Your task to perform on an android device: check out phone information Image 0: 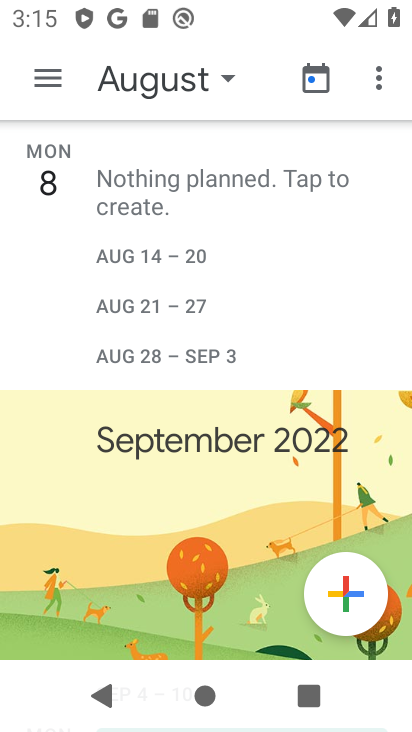
Step 0: press back button
Your task to perform on an android device: check out phone information Image 1: 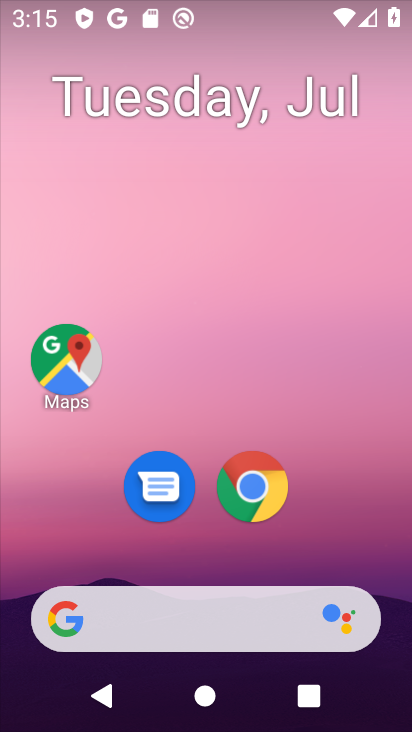
Step 1: drag from (142, 553) to (269, 15)
Your task to perform on an android device: check out phone information Image 2: 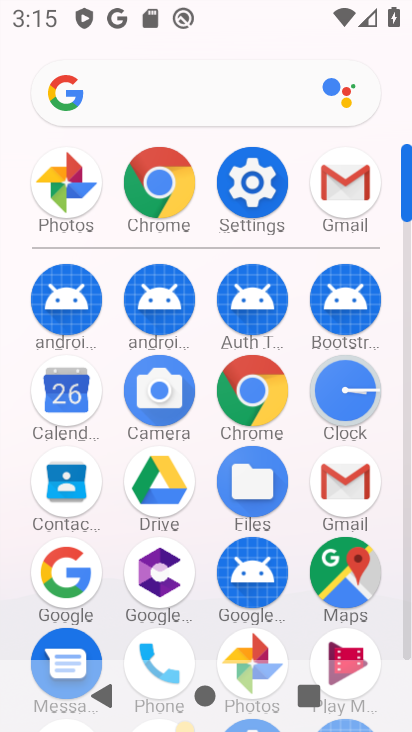
Step 2: click (257, 184)
Your task to perform on an android device: check out phone information Image 3: 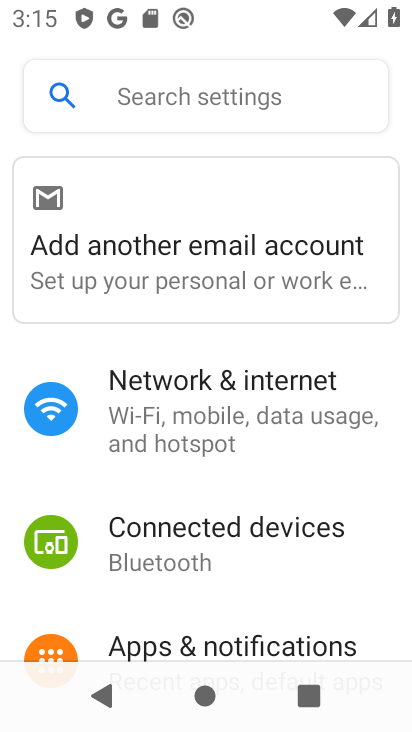
Step 3: drag from (202, 634) to (276, 19)
Your task to perform on an android device: check out phone information Image 4: 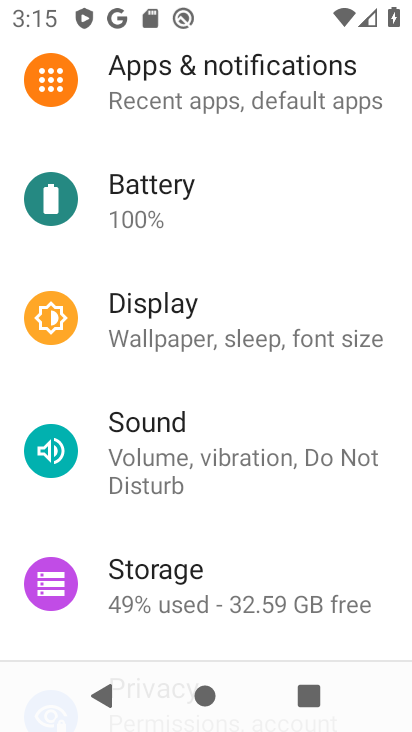
Step 4: drag from (184, 601) to (309, 0)
Your task to perform on an android device: check out phone information Image 5: 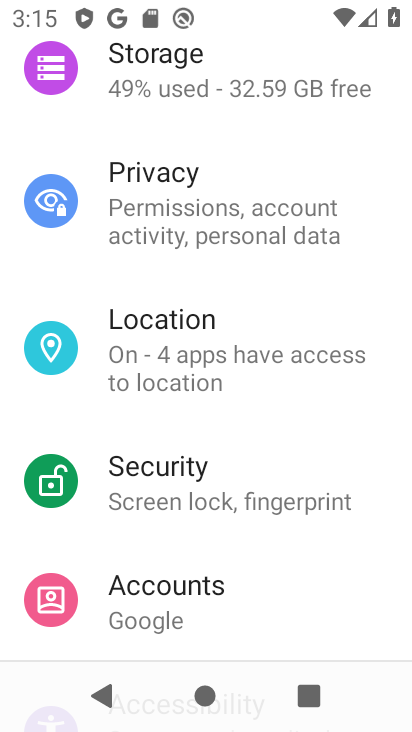
Step 5: drag from (158, 636) to (282, 25)
Your task to perform on an android device: check out phone information Image 6: 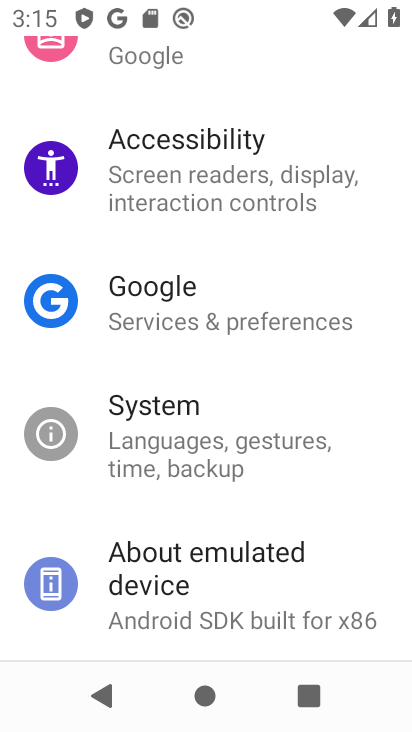
Step 6: drag from (191, 592) to (251, 23)
Your task to perform on an android device: check out phone information Image 7: 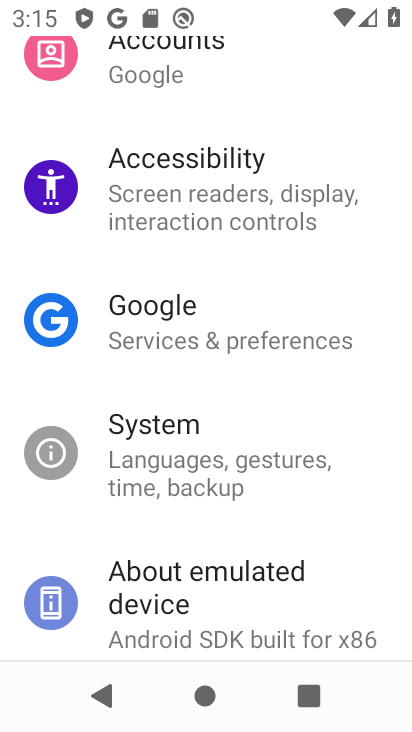
Step 7: click (178, 585)
Your task to perform on an android device: check out phone information Image 8: 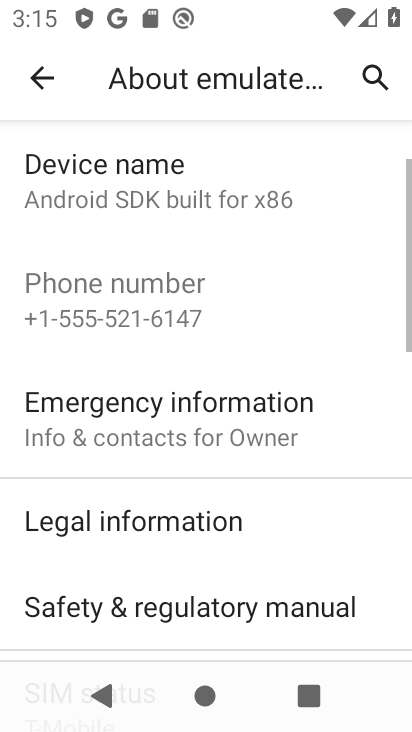
Step 8: task complete